Your task to perform on an android device: Do I have any events this weekend? Image 0: 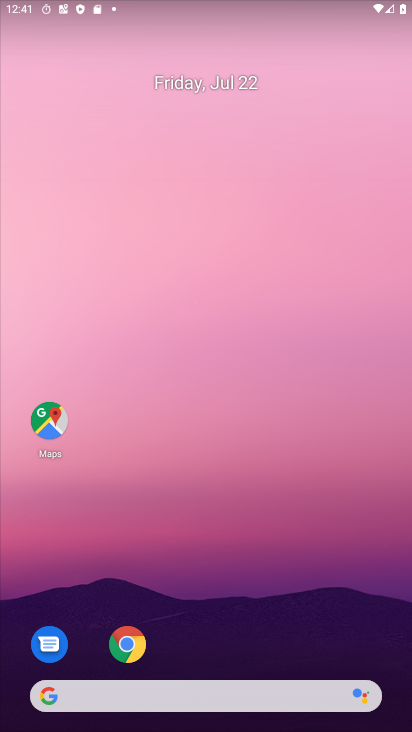
Step 0: drag from (245, 701) to (275, 144)
Your task to perform on an android device: Do I have any events this weekend? Image 1: 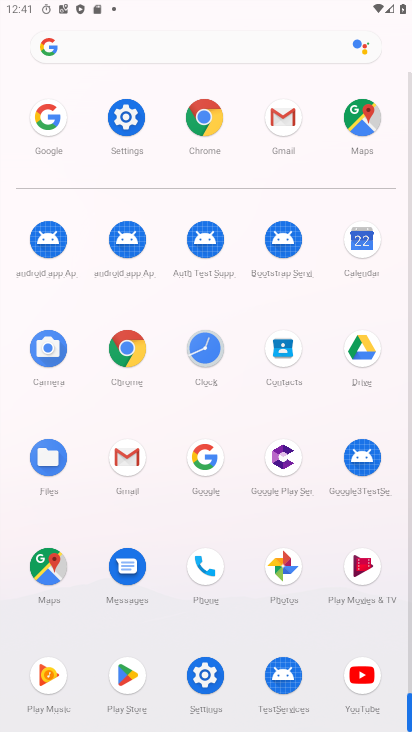
Step 1: click (340, 270)
Your task to perform on an android device: Do I have any events this weekend? Image 2: 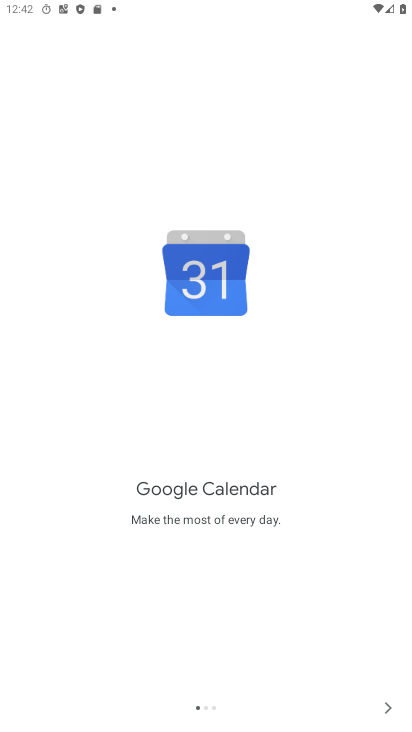
Step 2: click (386, 715)
Your task to perform on an android device: Do I have any events this weekend? Image 3: 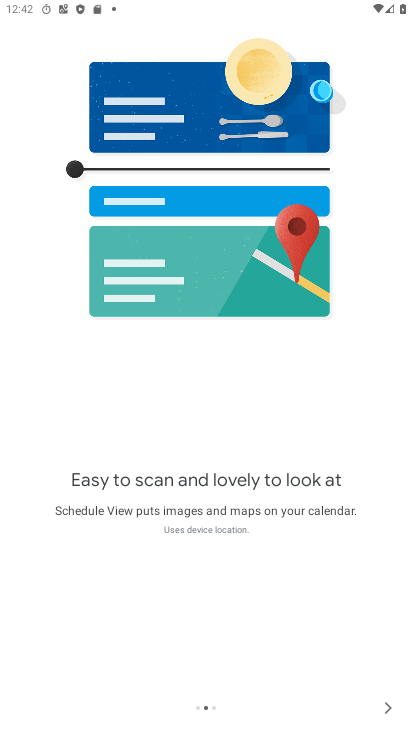
Step 3: click (386, 711)
Your task to perform on an android device: Do I have any events this weekend? Image 4: 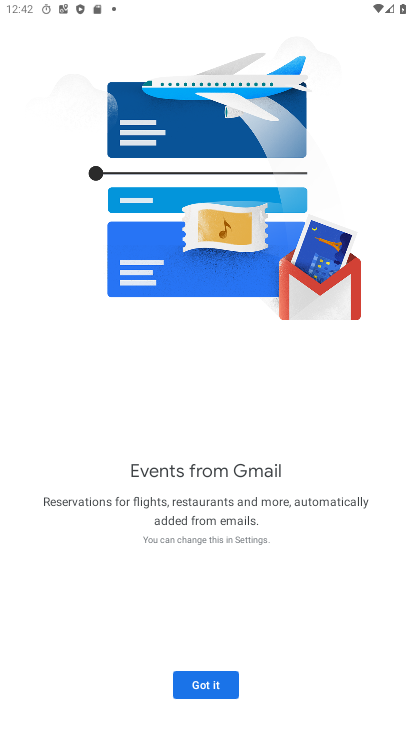
Step 4: click (220, 693)
Your task to perform on an android device: Do I have any events this weekend? Image 5: 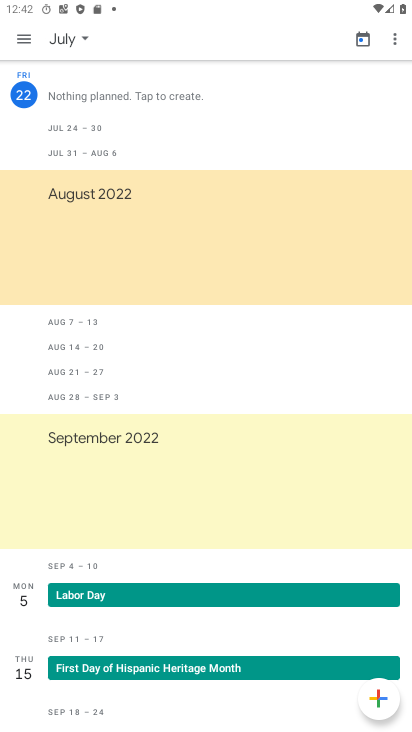
Step 5: click (77, 37)
Your task to perform on an android device: Do I have any events this weekend? Image 6: 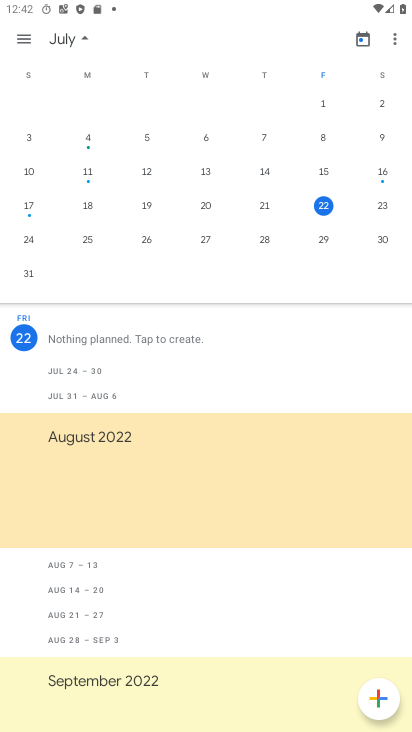
Step 6: click (377, 210)
Your task to perform on an android device: Do I have any events this weekend? Image 7: 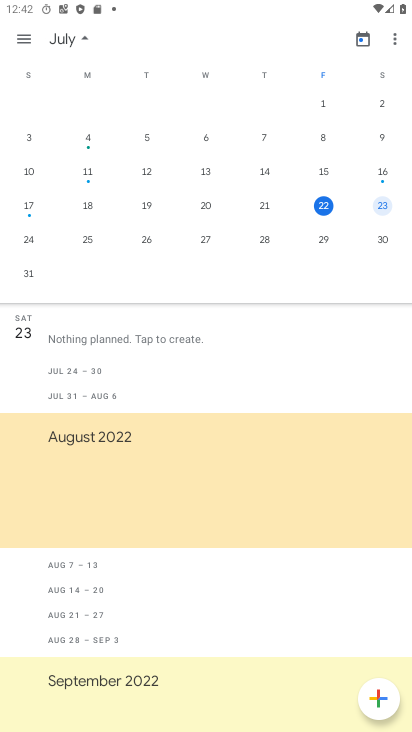
Step 7: task complete